Your task to perform on an android device: turn vacation reply on in the gmail app Image 0: 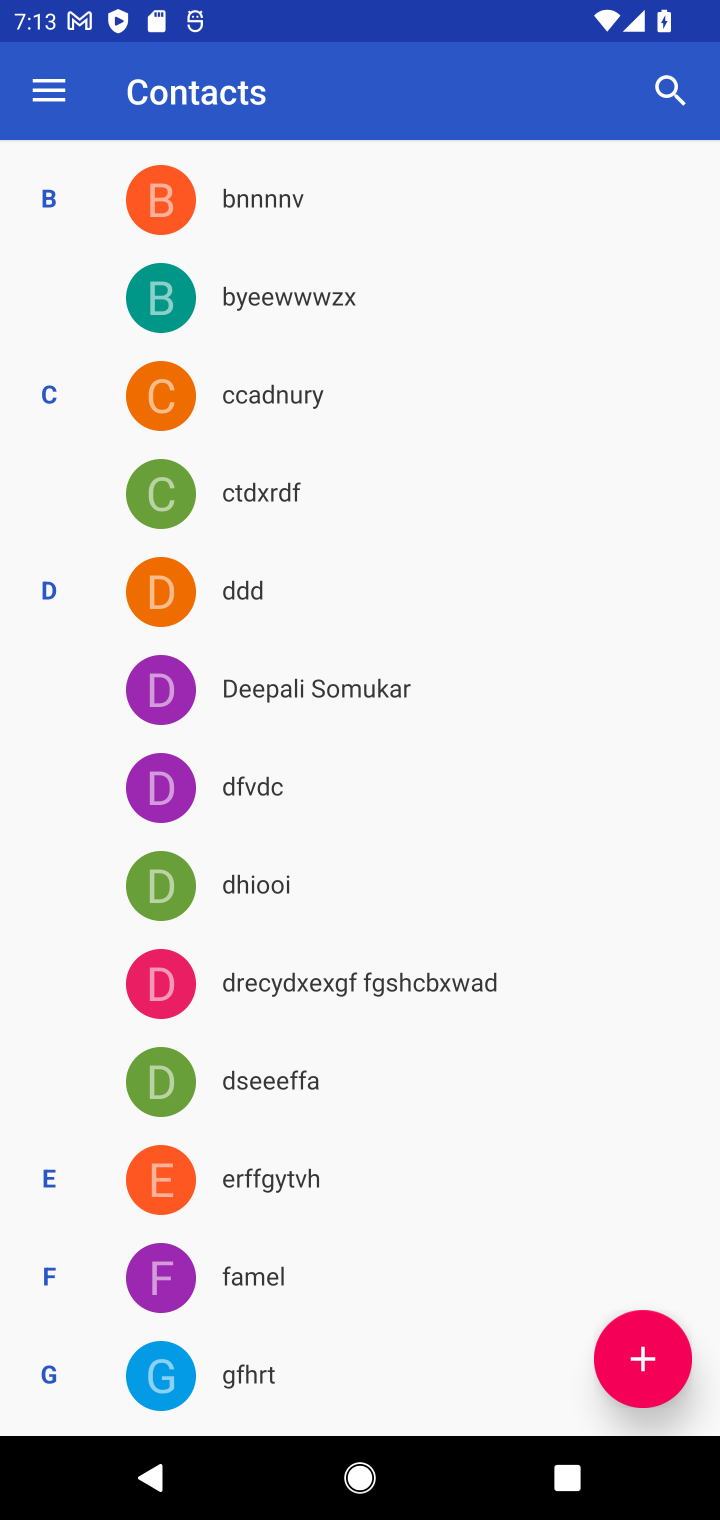
Step 0: press home button
Your task to perform on an android device: turn vacation reply on in the gmail app Image 1: 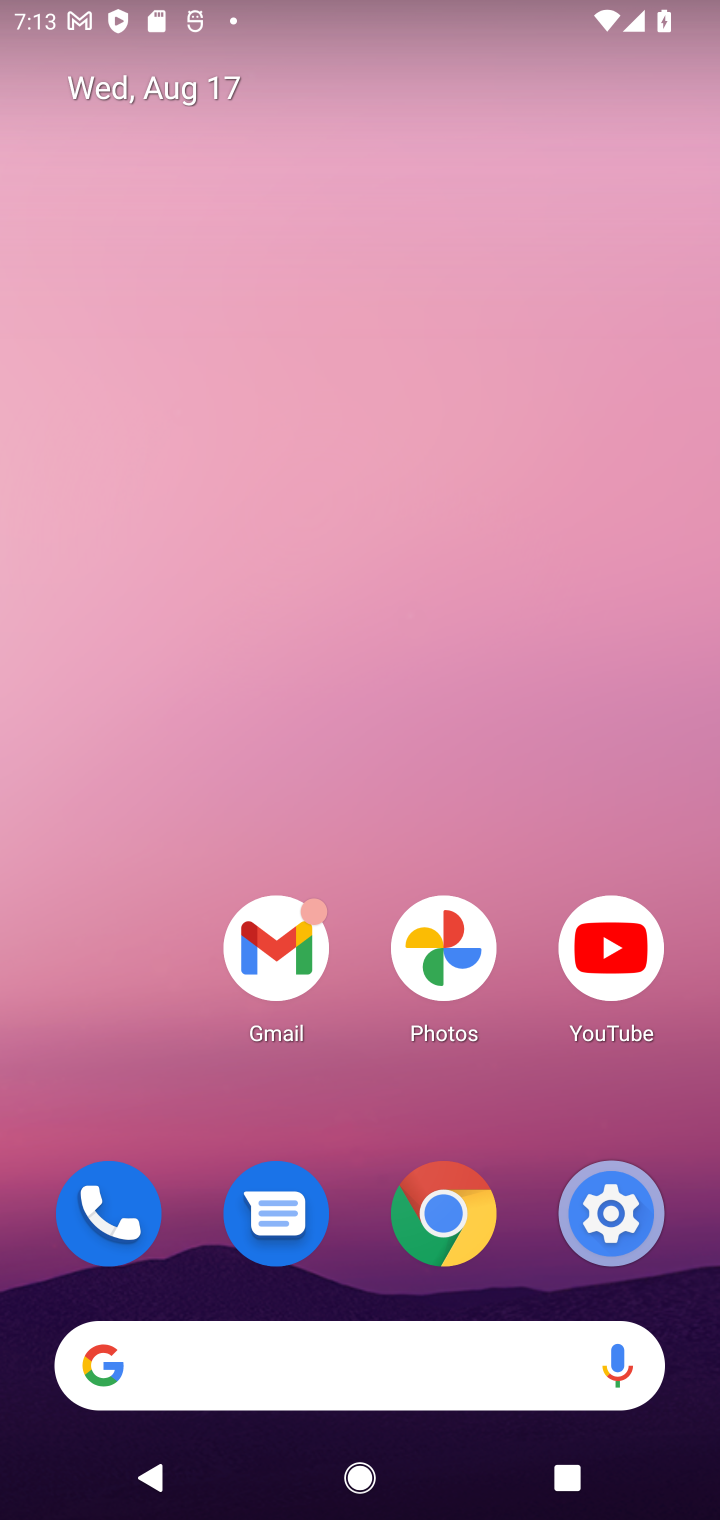
Step 1: click (276, 990)
Your task to perform on an android device: turn vacation reply on in the gmail app Image 2: 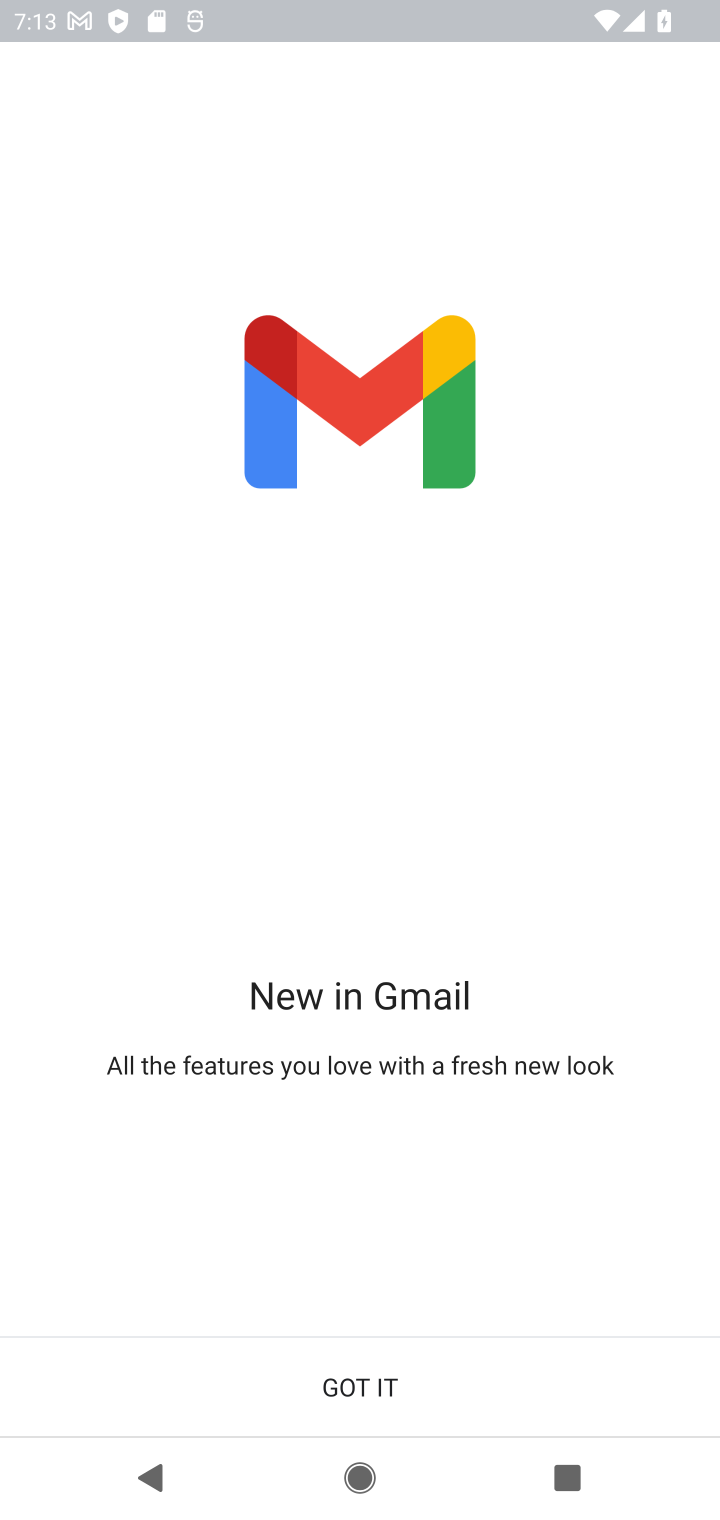
Step 2: click (417, 1347)
Your task to perform on an android device: turn vacation reply on in the gmail app Image 3: 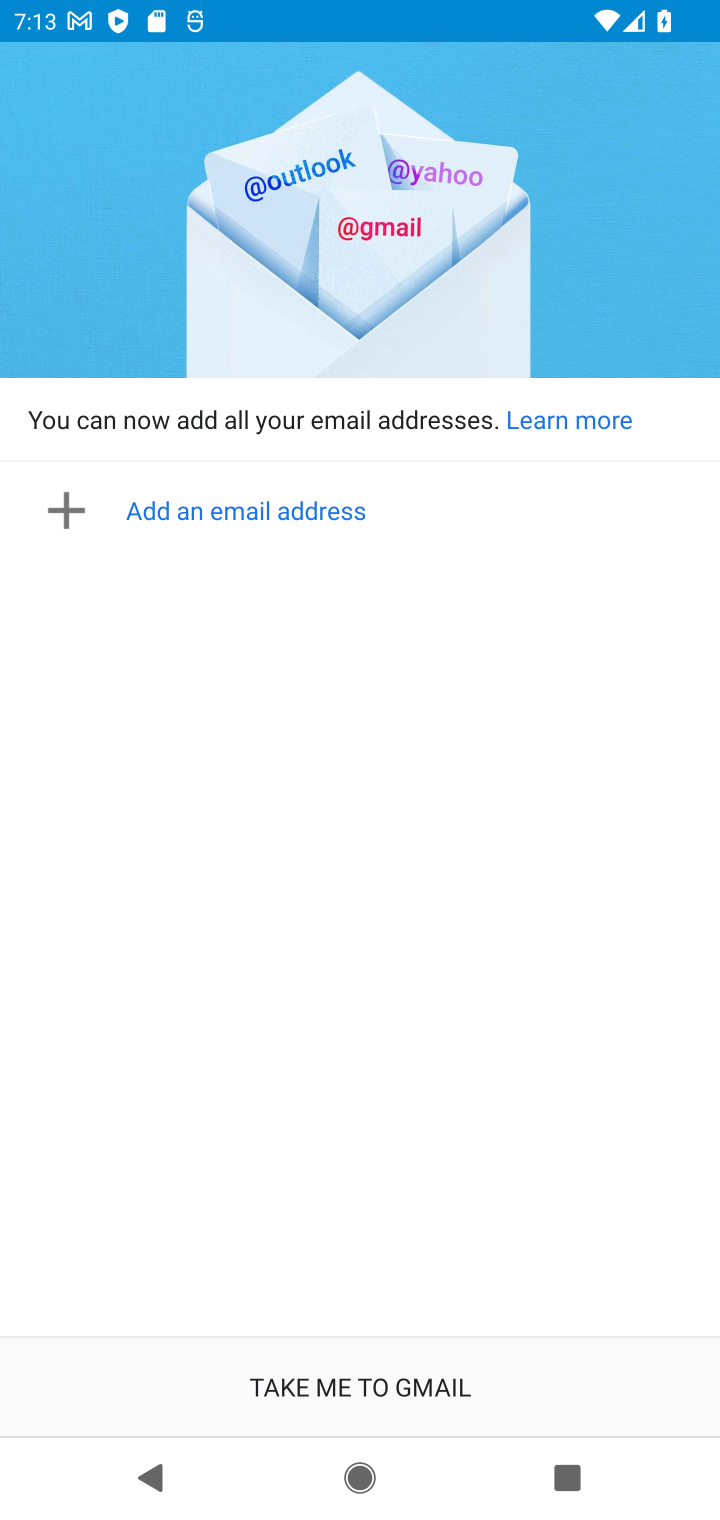
Step 3: click (417, 1347)
Your task to perform on an android device: turn vacation reply on in the gmail app Image 4: 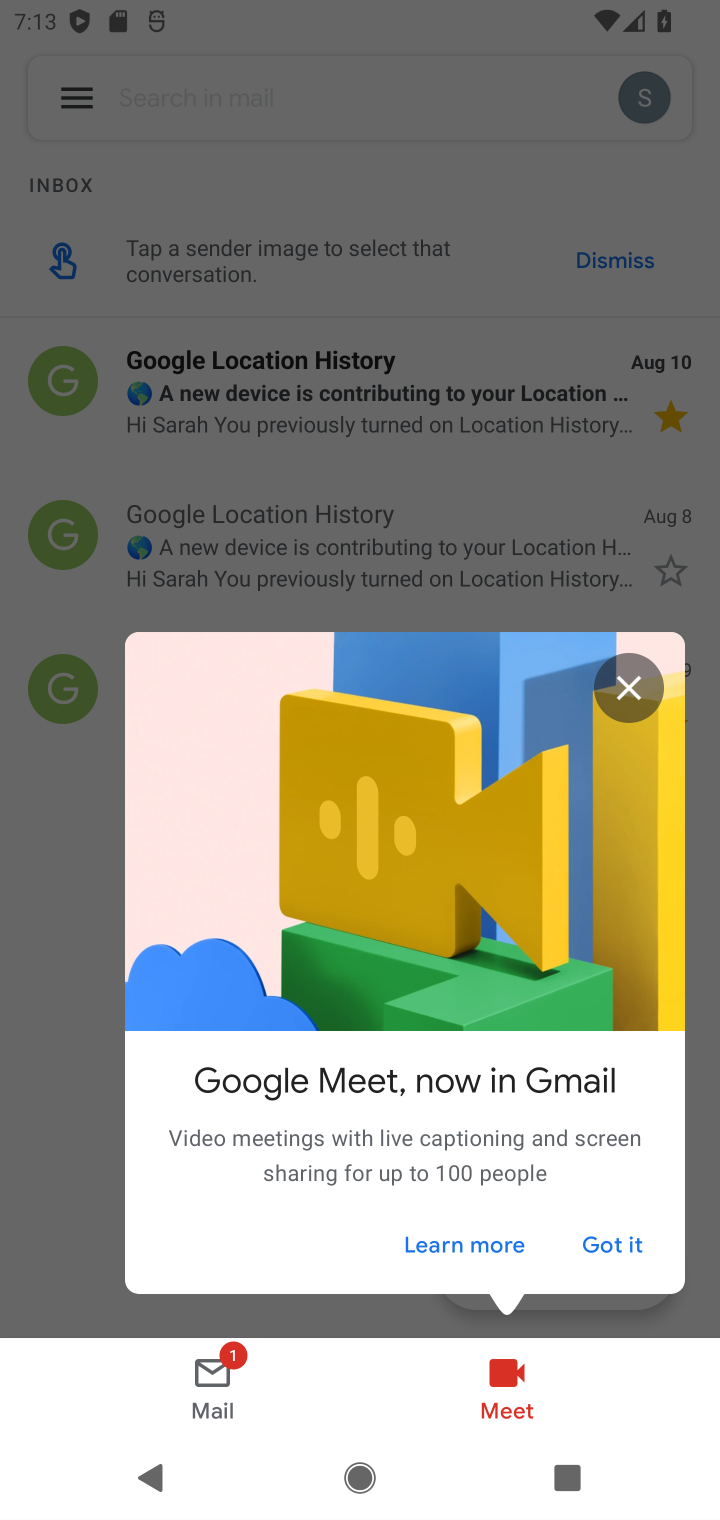
Step 4: click (611, 702)
Your task to perform on an android device: turn vacation reply on in the gmail app Image 5: 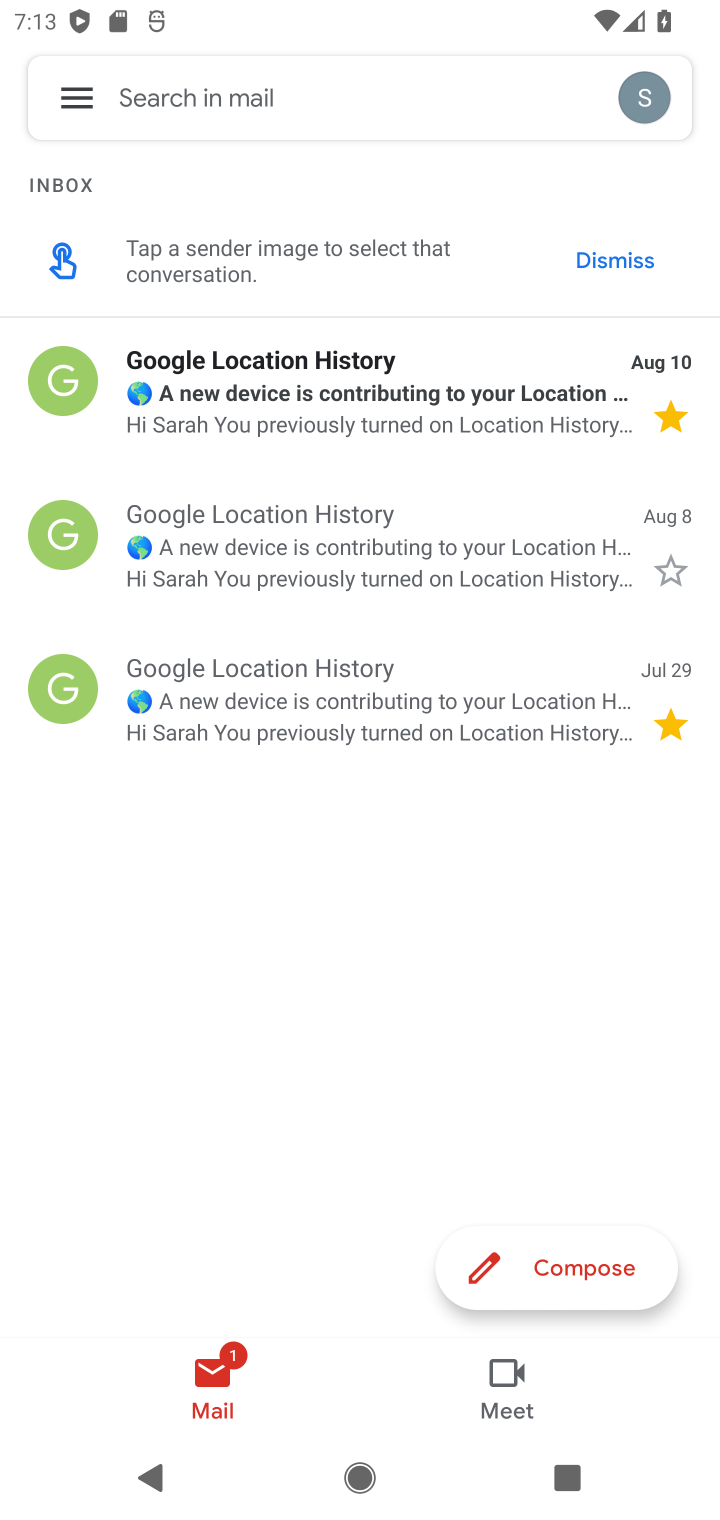
Step 5: click (75, 107)
Your task to perform on an android device: turn vacation reply on in the gmail app Image 6: 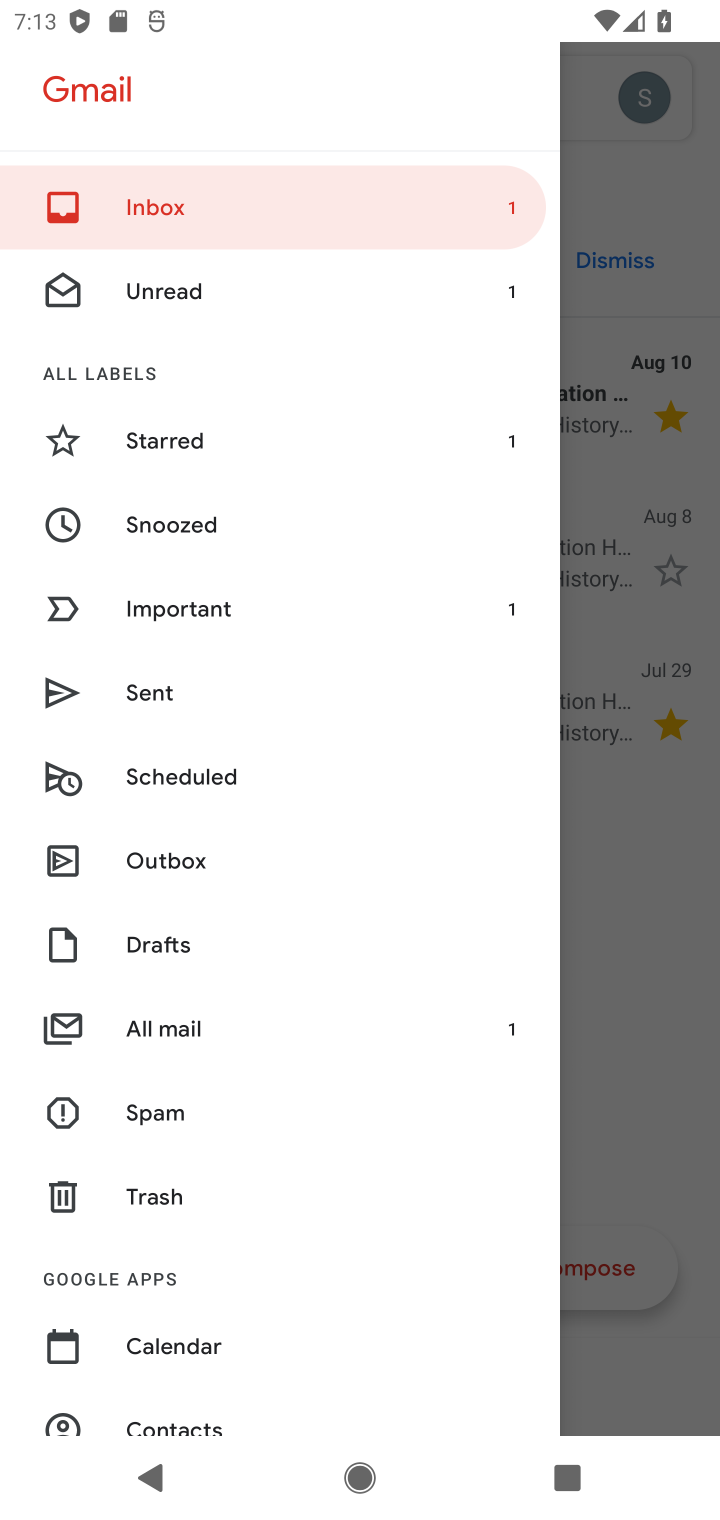
Step 6: drag from (174, 1215) to (250, 422)
Your task to perform on an android device: turn vacation reply on in the gmail app Image 7: 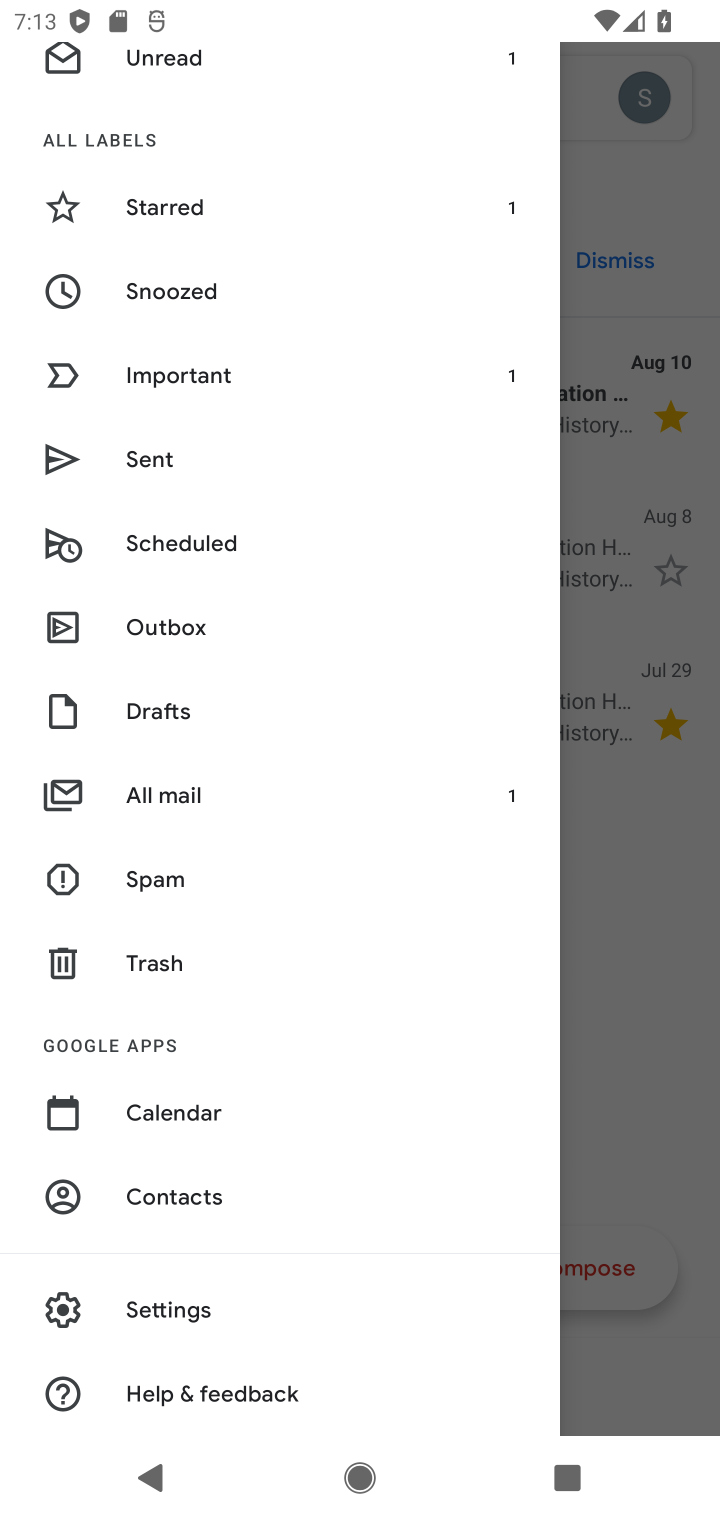
Step 7: click (224, 1326)
Your task to perform on an android device: turn vacation reply on in the gmail app Image 8: 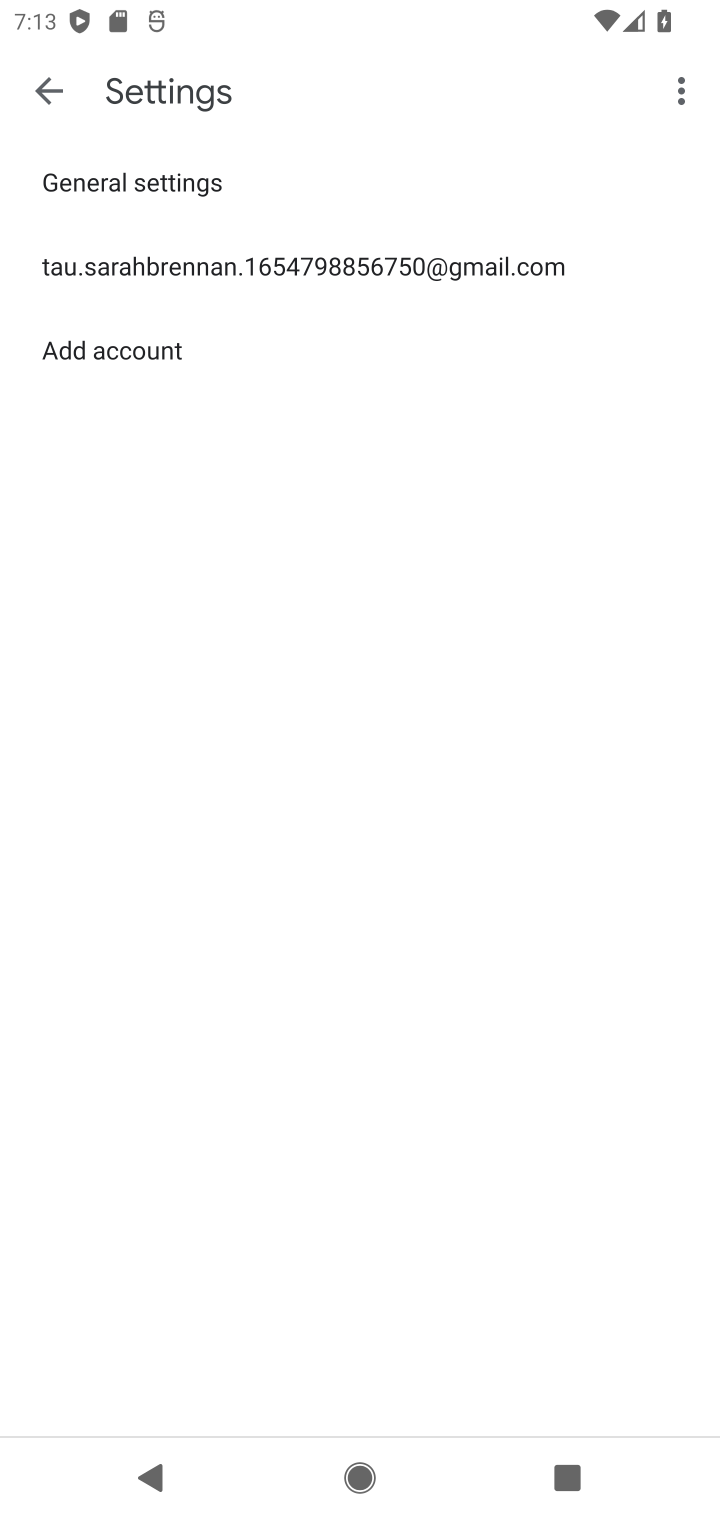
Step 8: click (205, 296)
Your task to perform on an android device: turn vacation reply on in the gmail app Image 9: 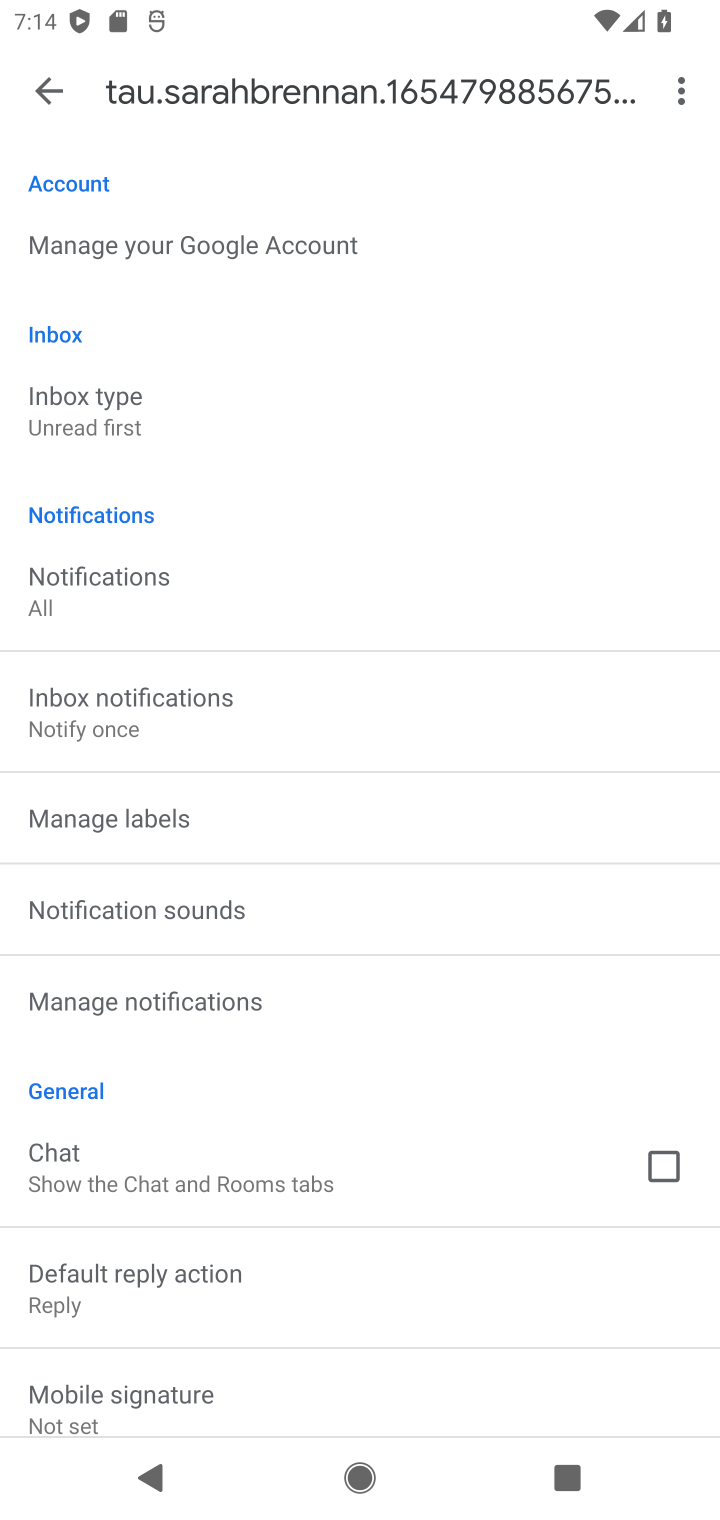
Step 9: click (344, 353)
Your task to perform on an android device: turn vacation reply on in the gmail app Image 10: 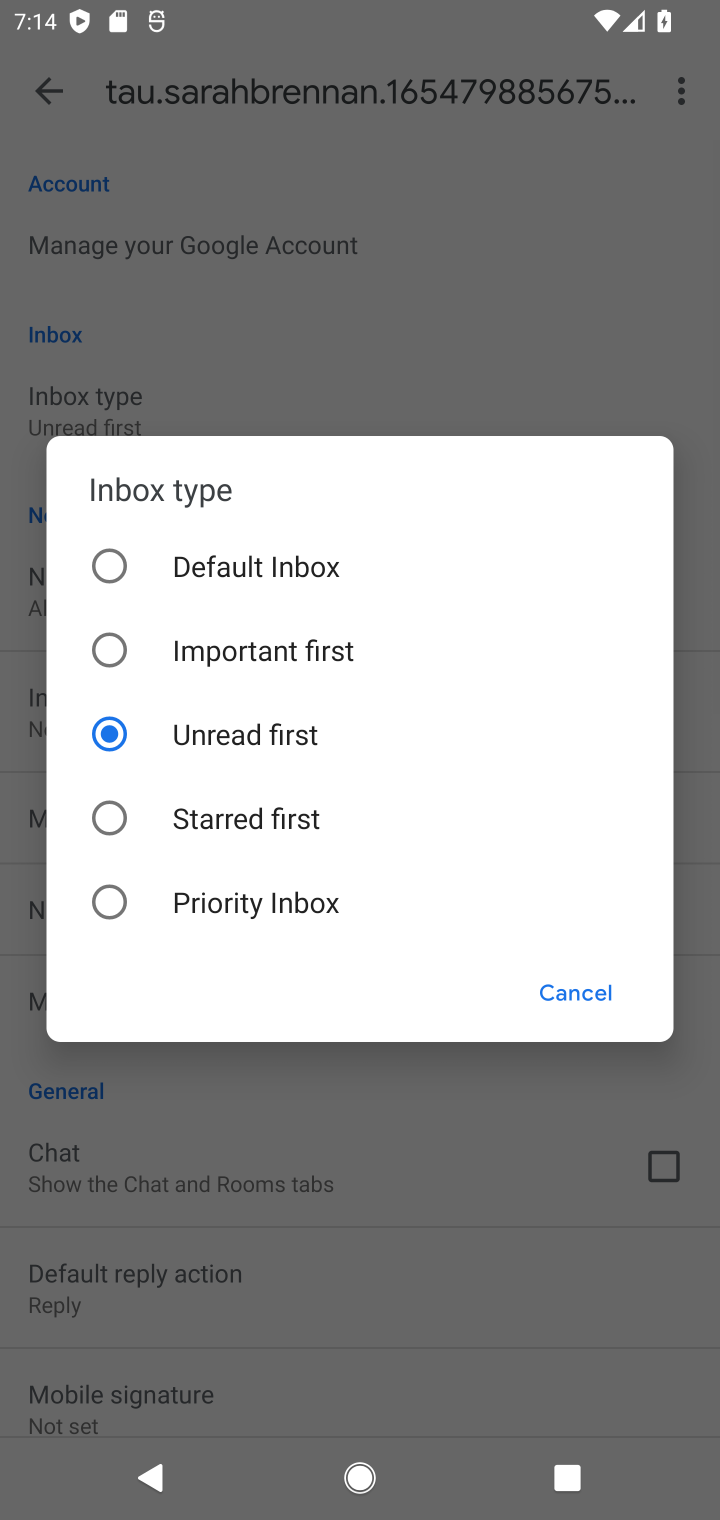
Step 10: click (531, 980)
Your task to perform on an android device: turn vacation reply on in the gmail app Image 11: 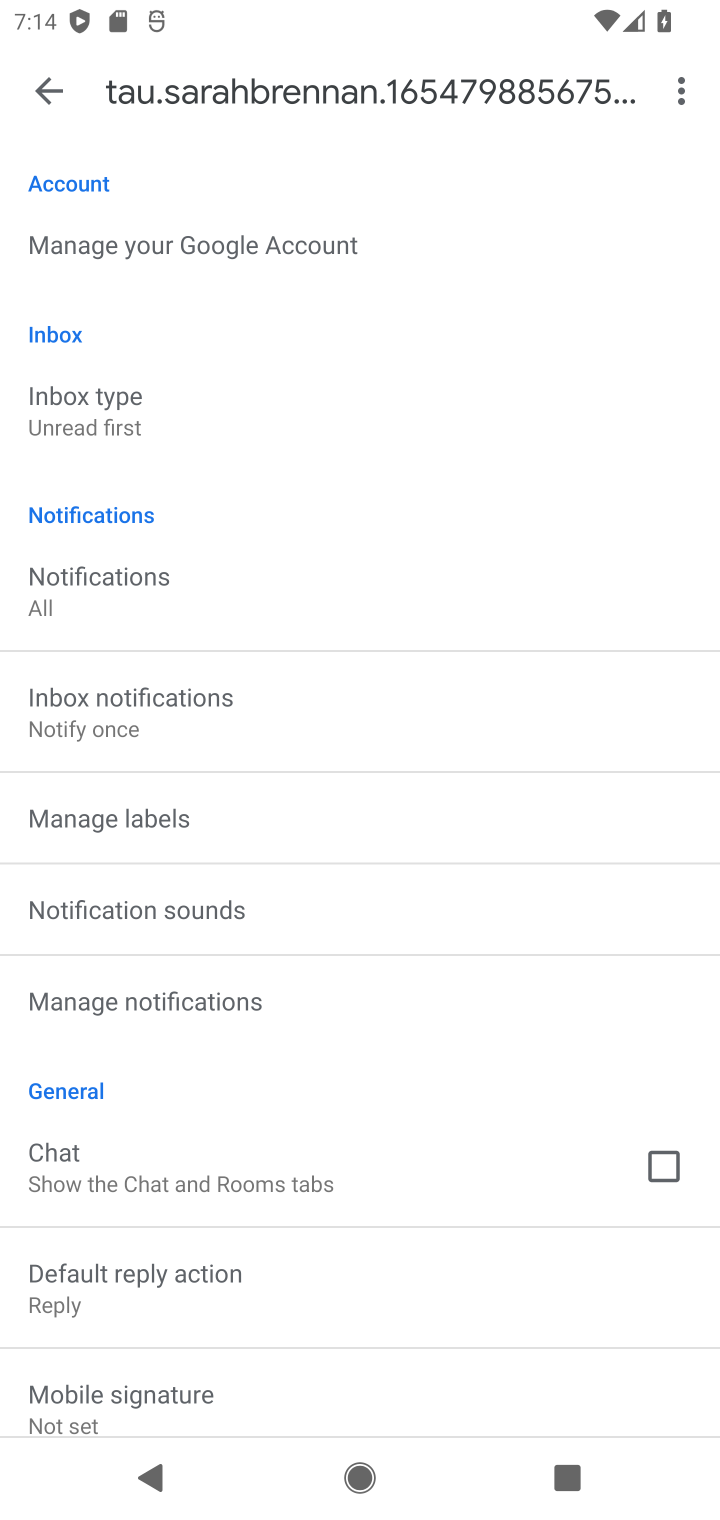
Step 11: task complete